Your task to perform on an android device: turn off wifi Image 0: 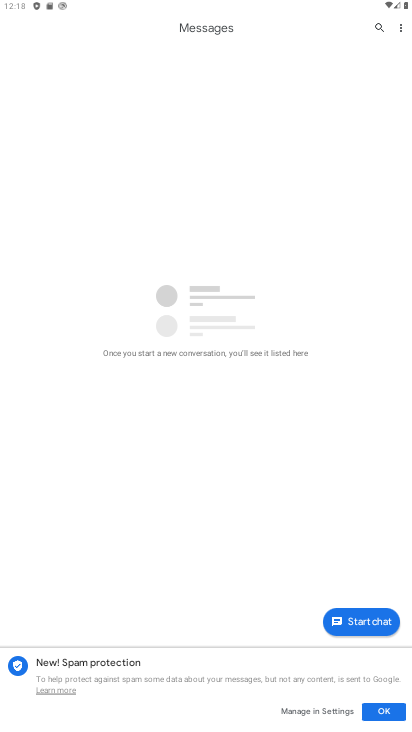
Step 0: press home button
Your task to perform on an android device: turn off wifi Image 1: 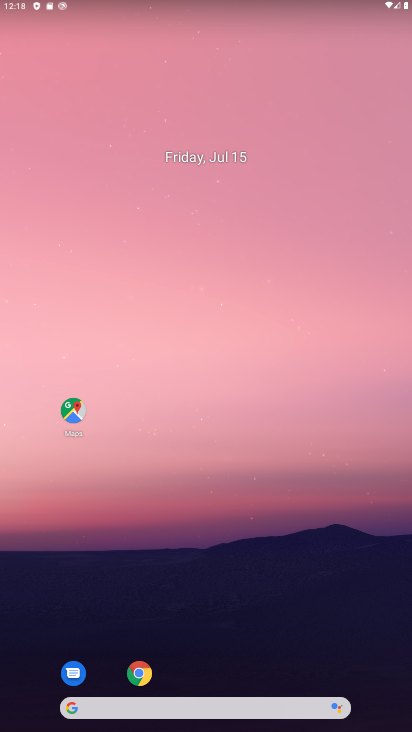
Step 1: drag from (387, 687) to (342, 156)
Your task to perform on an android device: turn off wifi Image 2: 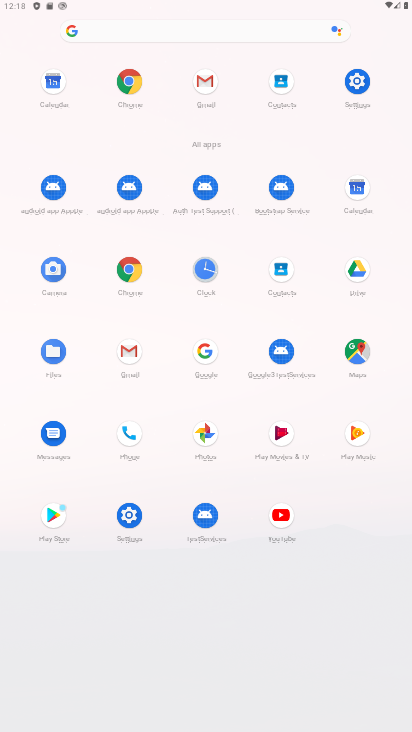
Step 2: click (347, 86)
Your task to perform on an android device: turn off wifi Image 3: 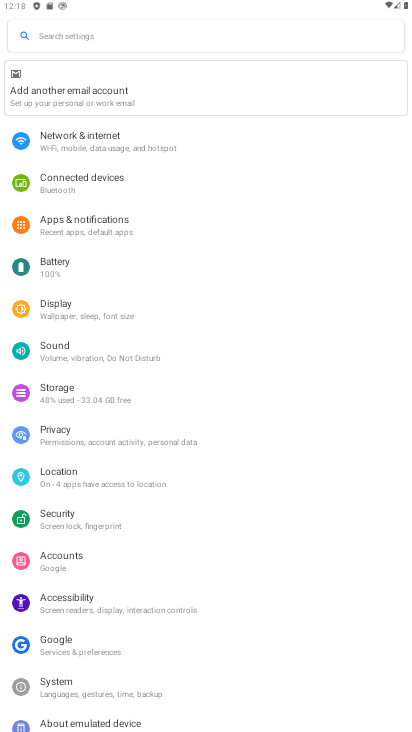
Step 3: click (91, 125)
Your task to perform on an android device: turn off wifi Image 4: 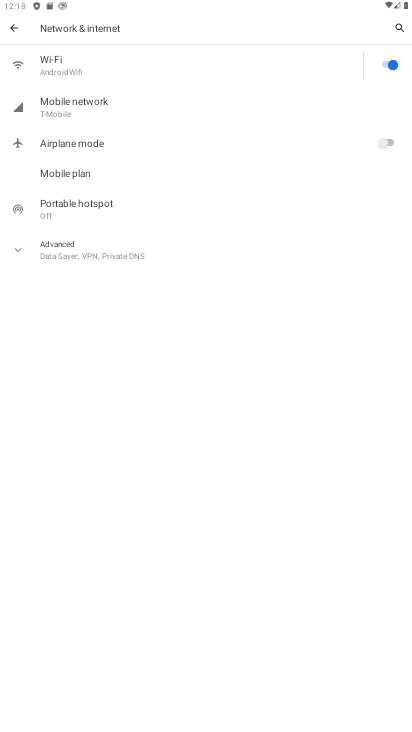
Step 4: click (375, 63)
Your task to perform on an android device: turn off wifi Image 5: 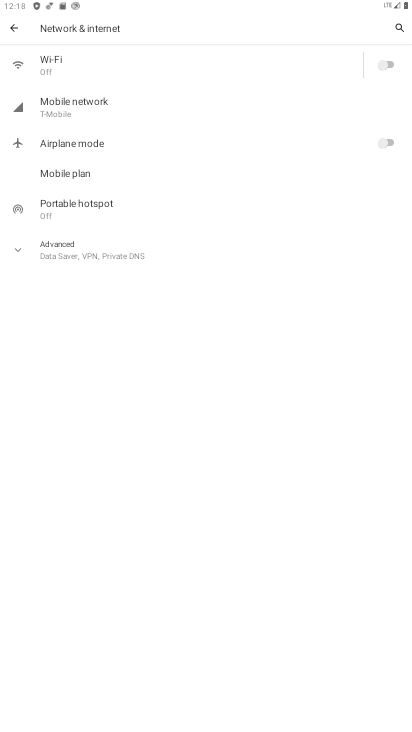
Step 5: task complete